Your task to perform on an android device: find photos in the google photos app Image 0: 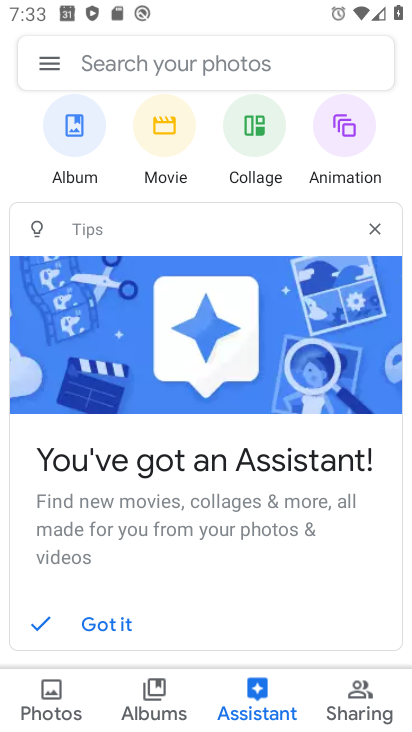
Step 0: press back button
Your task to perform on an android device: find photos in the google photos app Image 1: 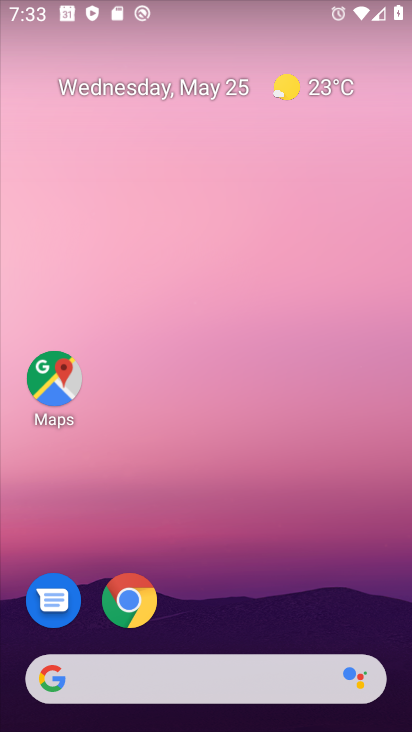
Step 1: drag from (255, 621) to (283, 92)
Your task to perform on an android device: find photos in the google photos app Image 2: 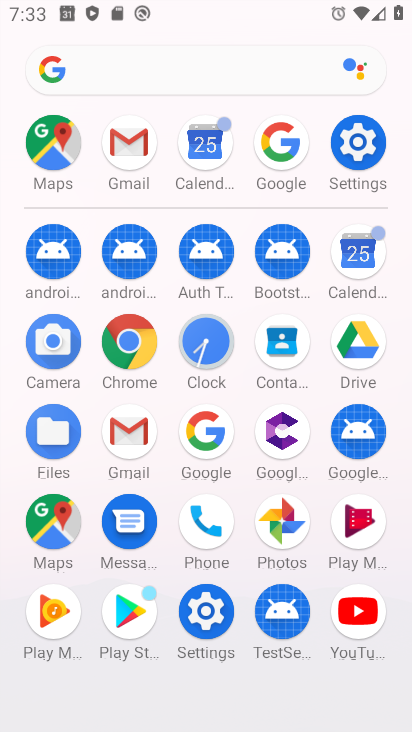
Step 2: click (281, 518)
Your task to perform on an android device: find photos in the google photos app Image 3: 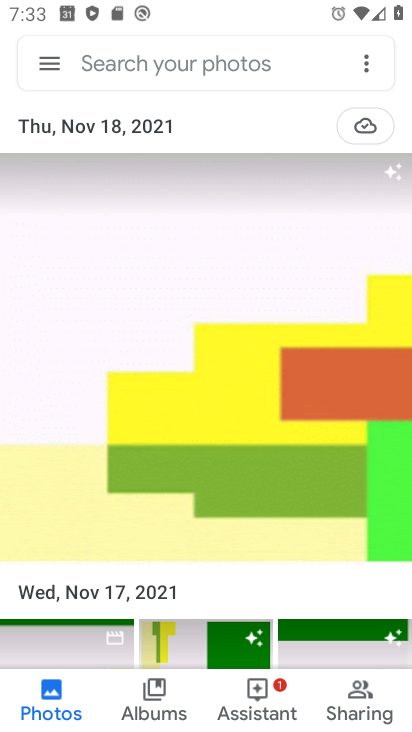
Step 3: task complete